Your task to perform on an android device: Search for seafood restaurants on Google Maps Image 0: 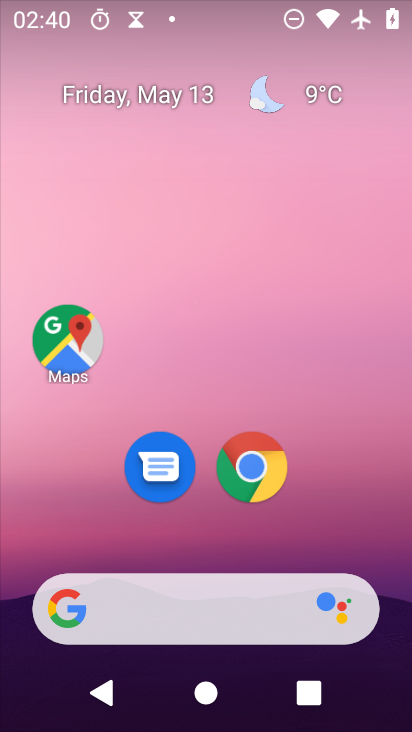
Step 0: drag from (237, 6) to (104, 27)
Your task to perform on an android device: Search for seafood restaurants on Google Maps Image 1: 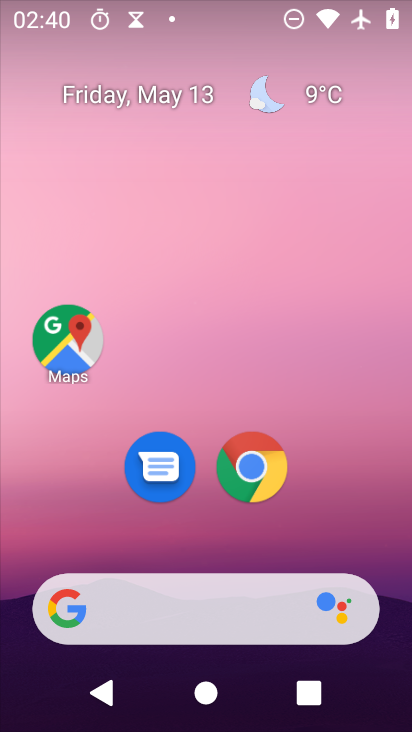
Step 1: click (85, 340)
Your task to perform on an android device: Search for seafood restaurants on Google Maps Image 2: 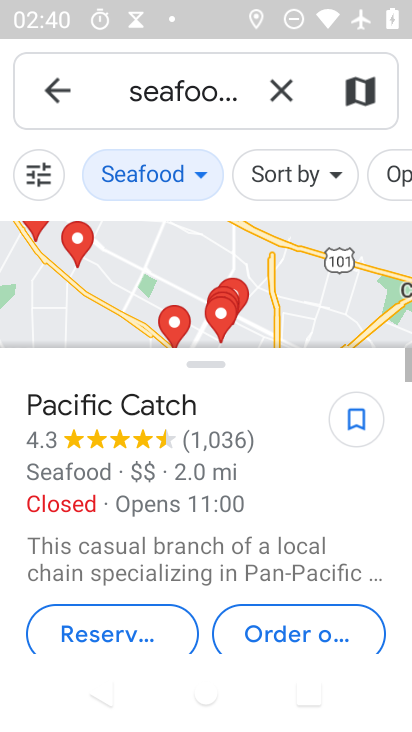
Step 2: task complete